Your task to perform on an android device: Show me the alarms in the clock app Image 0: 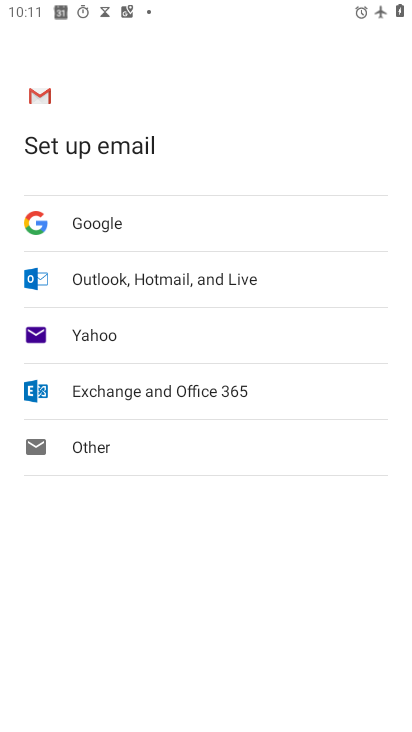
Step 0: press home button
Your task to perform on an android device: Show me the alarms in the clock app Image 1: 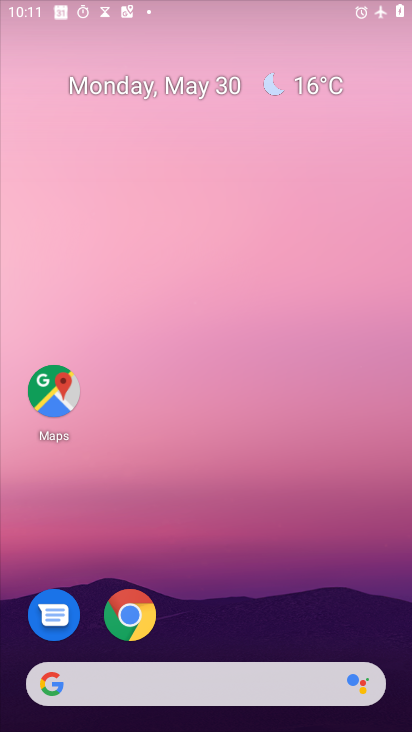
Step 1: drag from (269, 540) to (228, 7)
Your task to perform on an android device: Show me the alarms in the clock app Image 2: 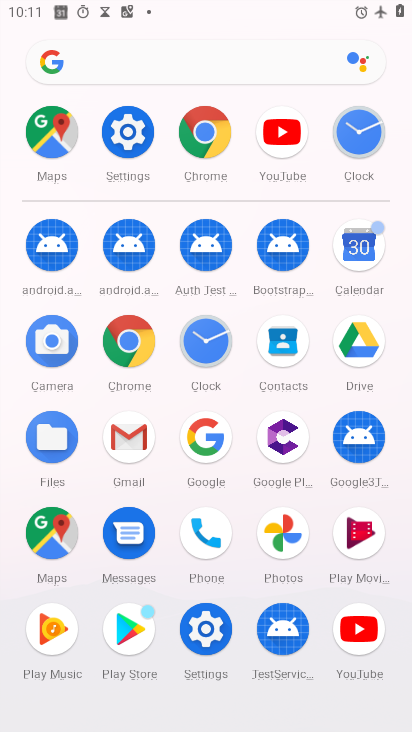
Step 2: click (189, 357)
Your task to perform on an android device: Show me the alarms in the clock app Image 3: 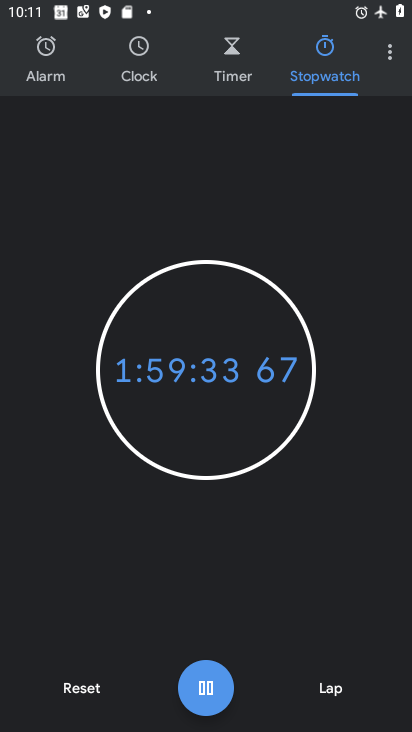
Step 3: click (388, 59)
Your task to perform on an android device: Show me the alarms in the clock app Image 4: 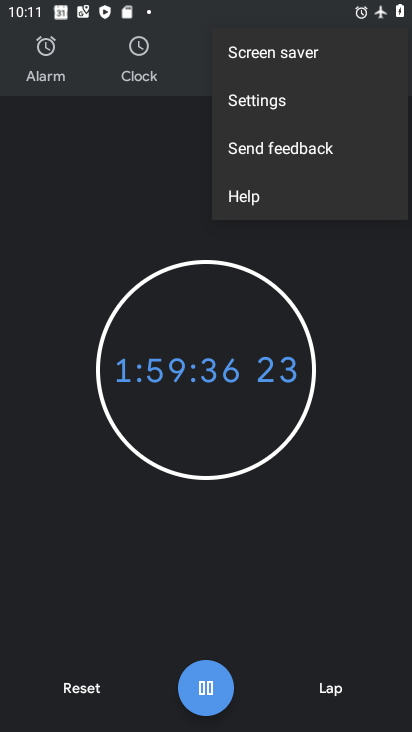
Step 4: click (276, 107)
Your task to perform on an android device: Show me the alarms in the clock app Image 5: 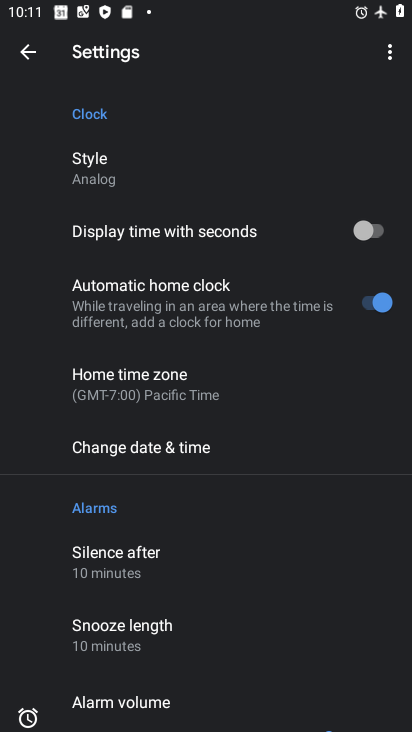
Step 5: click (30, 52)
Your task to perform on an android device: Show me the alarms in the clock app Image 6: 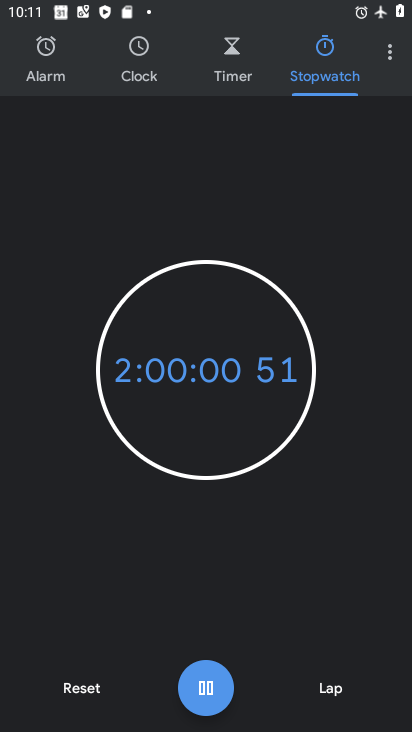
Step 6: click (46, 71)
Your task to perform on an android device: Show me the alarms in the clock app Image 7: 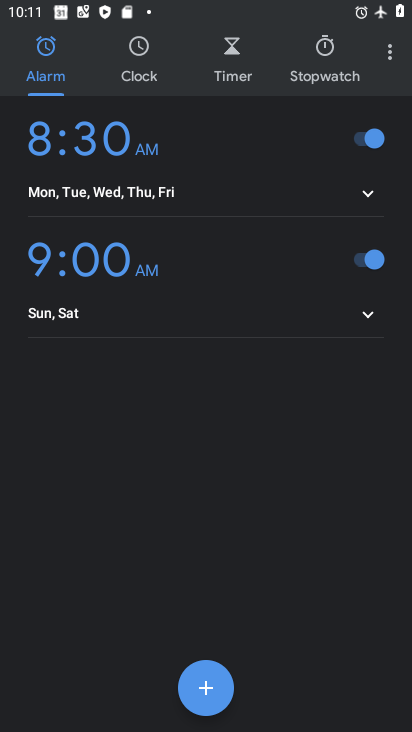
Step 7: task complete